Your task to perform on an android device: Search for Mexican restaurants on Maps Image 0: 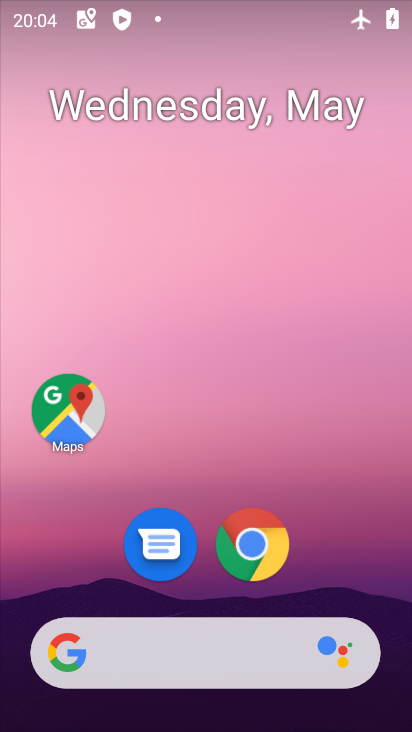
Step 0: click (59, 379)
Your task to perform on an android device: Search for Mexican restaurants on Maps Image 1: 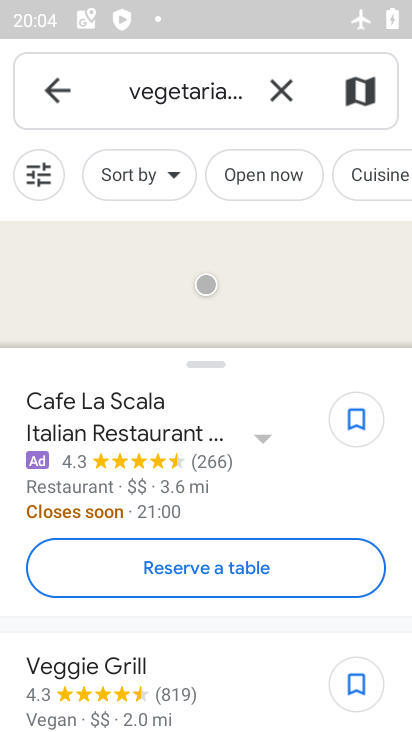
Step 1: click (286, 80)
Your task to perform on an android device: Search for Mexican restaurants on Maps Image 2: 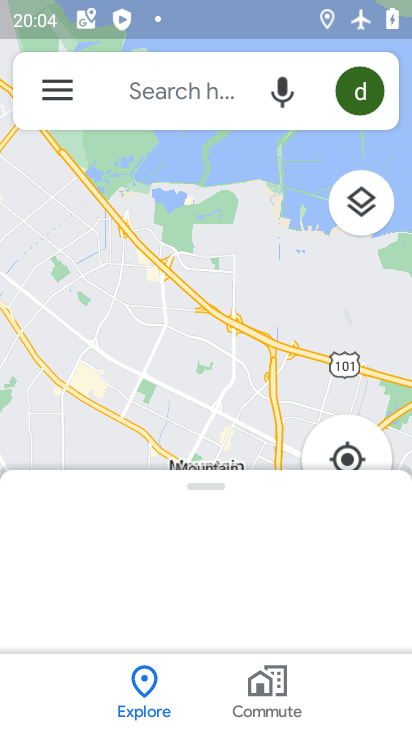
Step 2: click (142, 88)
Your task to perform on an android device: Search for Mexican restaurants on Maps Image 3: 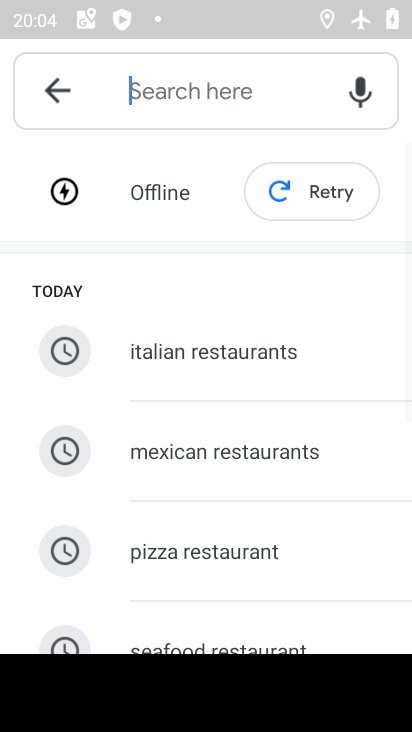
Step 3: click (197, 464)
Your task to perform on an android device: Search for Mexican restaurants on Maps Image 4: 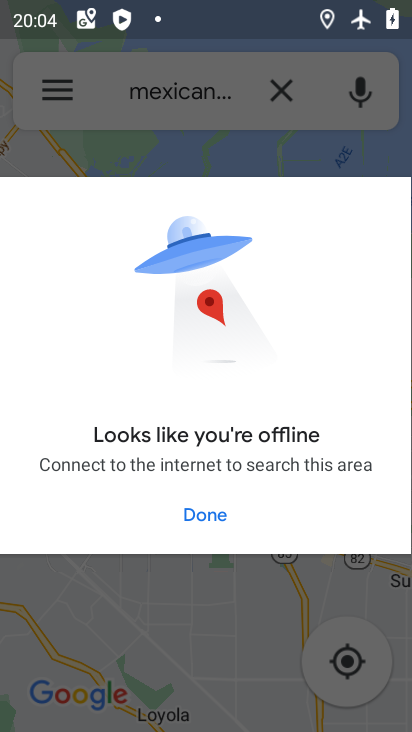
Step 4: drag from (261, 8) to (196, 691)
Your task to perform on an android device: Search for Mexican restaurants on Maps Image 5: 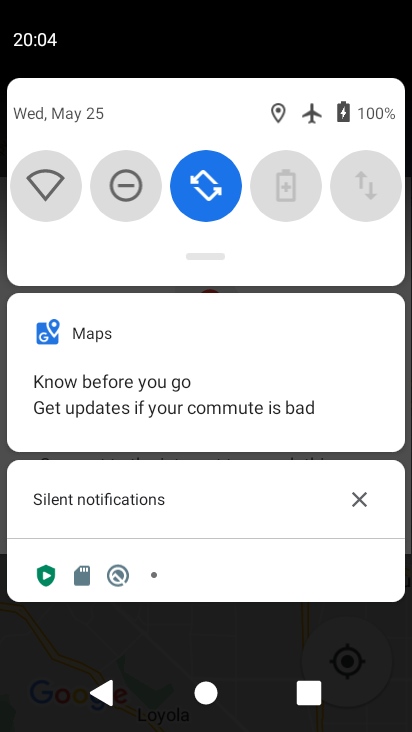
Step 5: drag from (230, 113) to (273, 602)
Your task to perform on an android device: Search for Mexican restaurants on Maps Image 6: 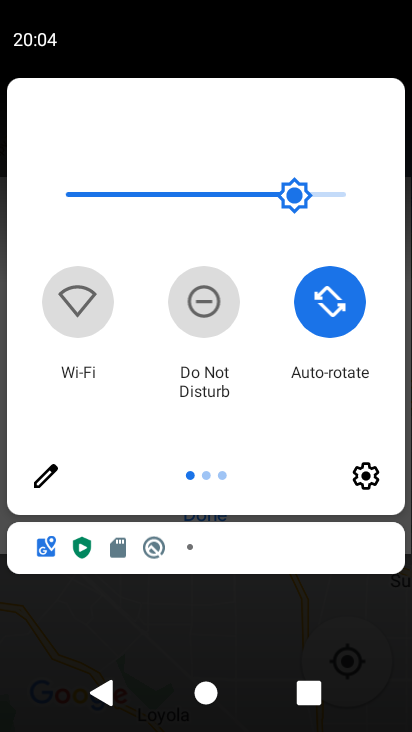
Step 6: drag from (375, 443) to (82, 471)
Your task to perform on an android device: Search for Mexican restaurants on Maps Image 7: 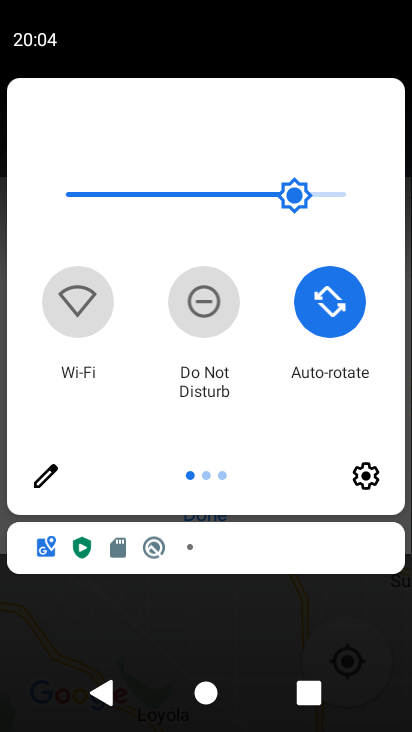
Step 7: drag from (354, 400) to (26, 439)
Your task to perform on an android device: Search for Mexican restaurants on Maps Image 8: 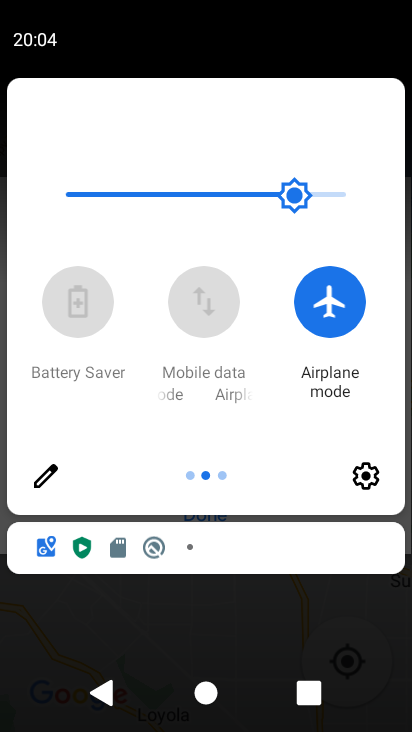
Step 8: click (347, 307)
Your task to perform on an android device: Search for Mexican restaurants on Maps Image 9: 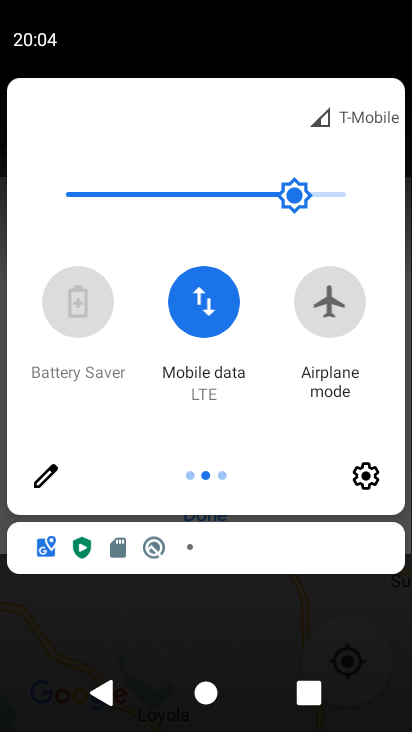
Step 9: click (257, 651)
Your task to perform on an android device: Search for Mexican restaurants on Maps Image 10: 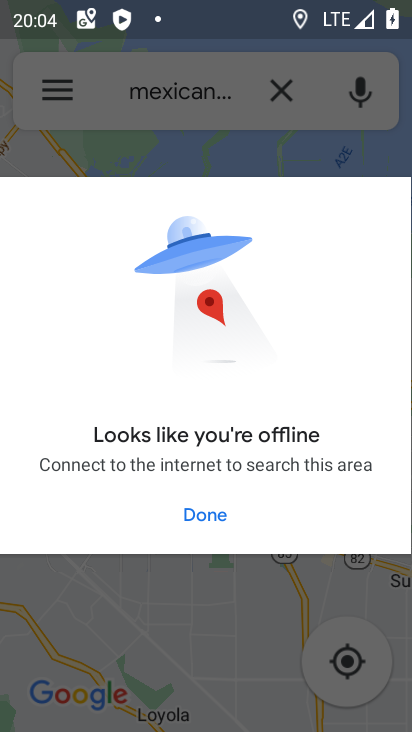
Step 10: click (257, 651)
Your task to perform on an android device: Search for Mexican restaurants on Maps Image 11: 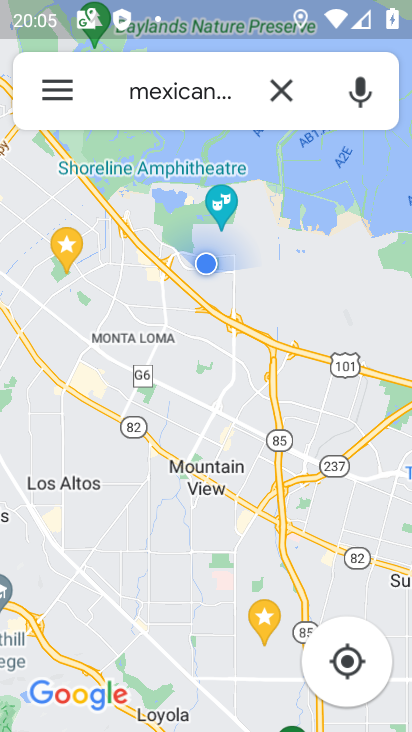
Step 11: task complete